Your task to perform on an android device: Open calendar and show me the fourth week of next month Image 0: 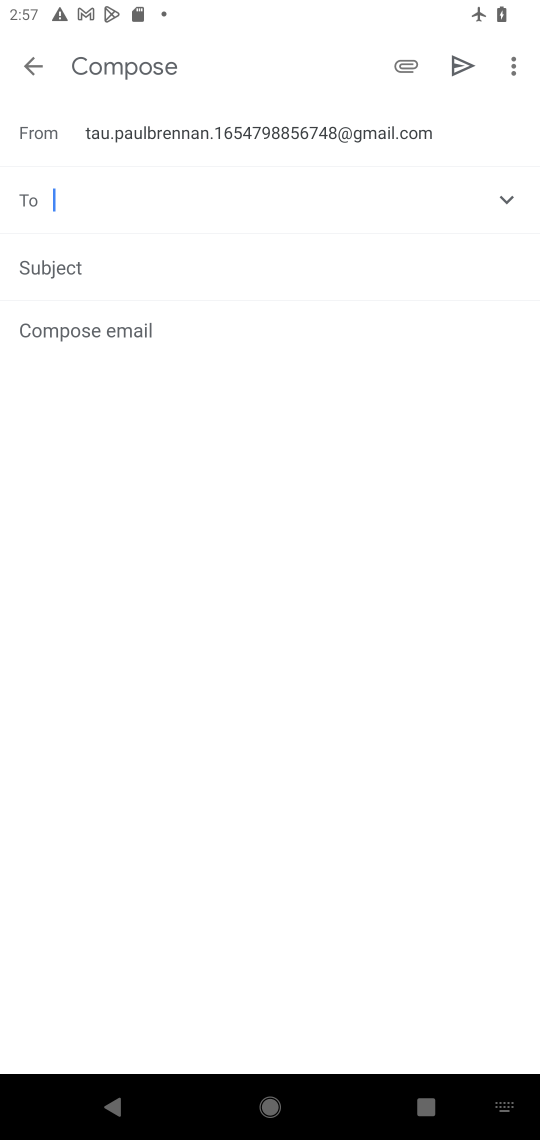
Step 0: press home button
Your task to perform on an android device: Open calendar and show me the fourth week of next month Image 1: 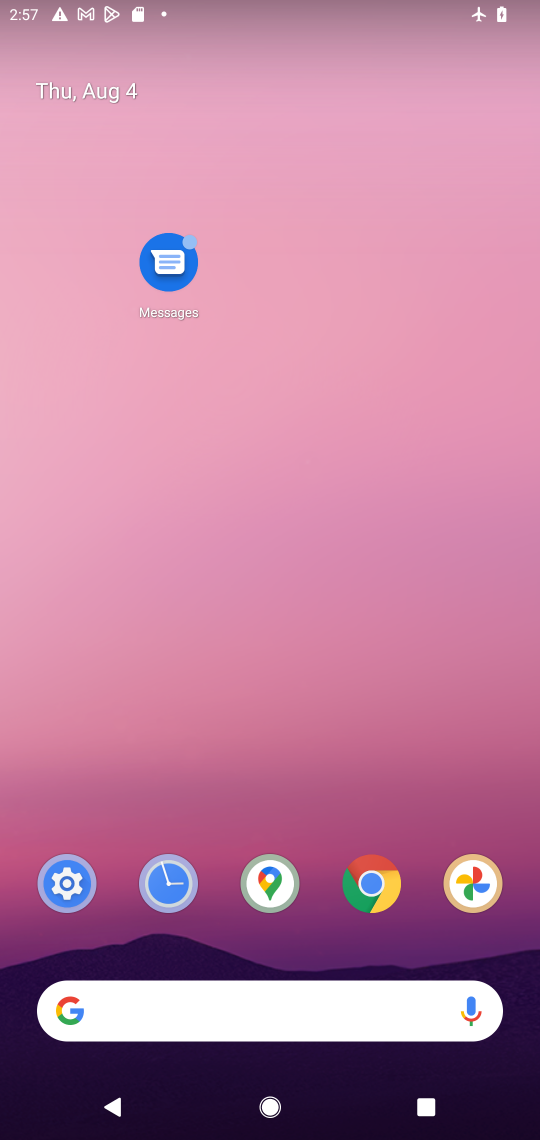
Step 1: drag from (215, 934) to (198, 332)
Your task to perform on an android device: Open calendar and show me the fourth week of next month Image 2: 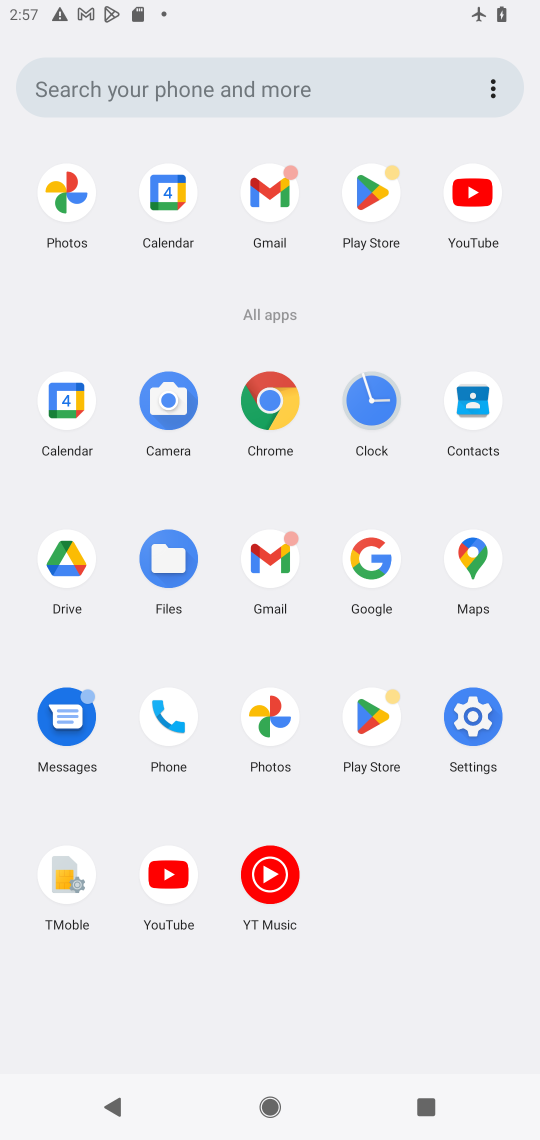
Step 2: click (165, 193)
Your task to perform on an android device: Open calendar and show me the fourth week of next month Image 3: 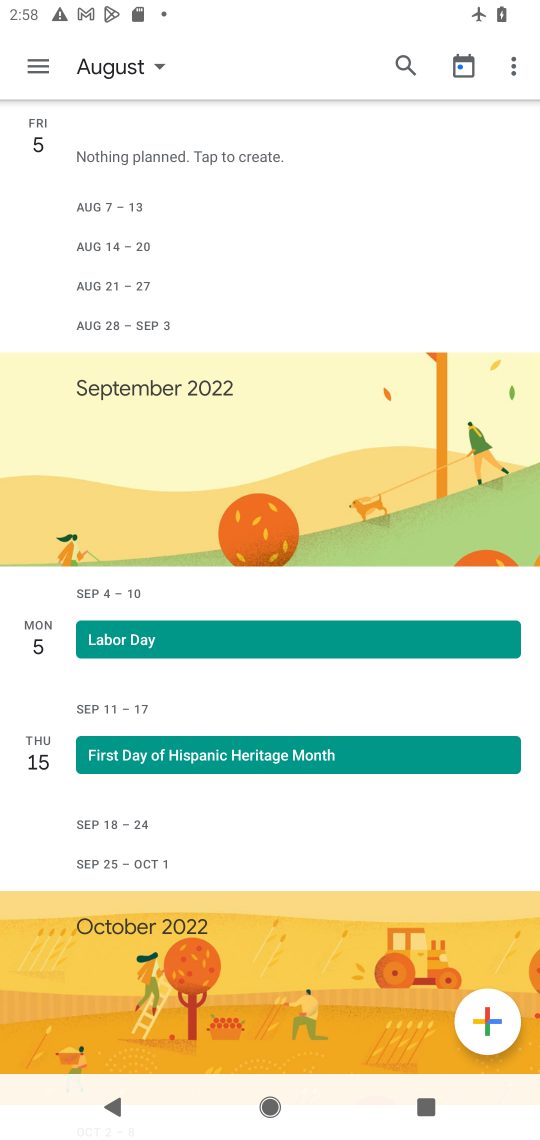
Step 3: click (161, 63)
Your task to perform on an android device: Open calendar and show me the fourth week of next month Image 4: 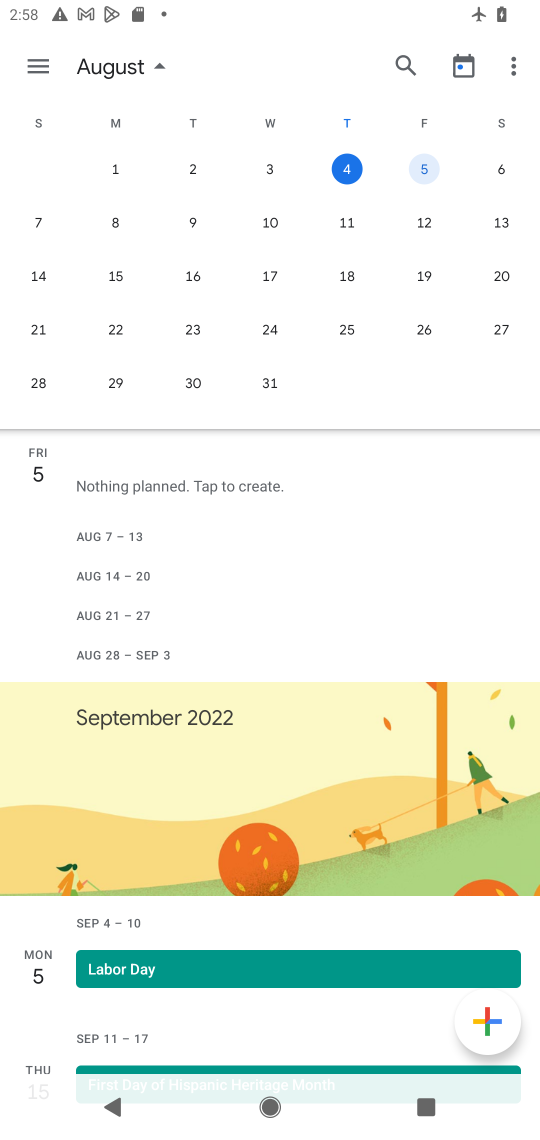
Step 4: drag from (382, 286) to (119, 322)
Your task to perform on an android device: Open calendar and show me the fourth week of next month Image 5: 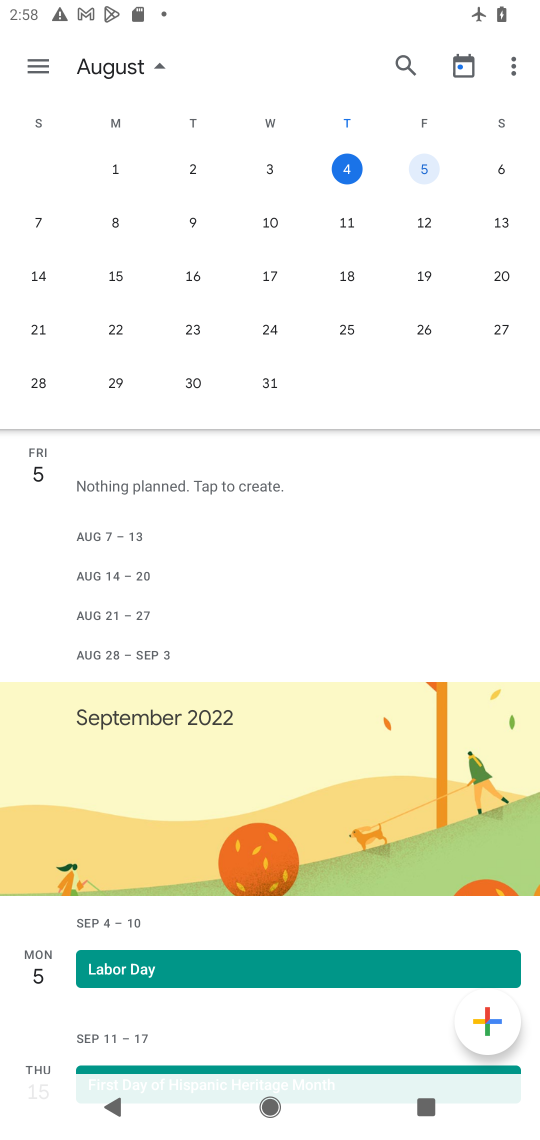
Step 5: drag from (424, 292) to (47, 309)
Your task to perform on an android device: Open calendar and show me the fourth week of next month Image 6: 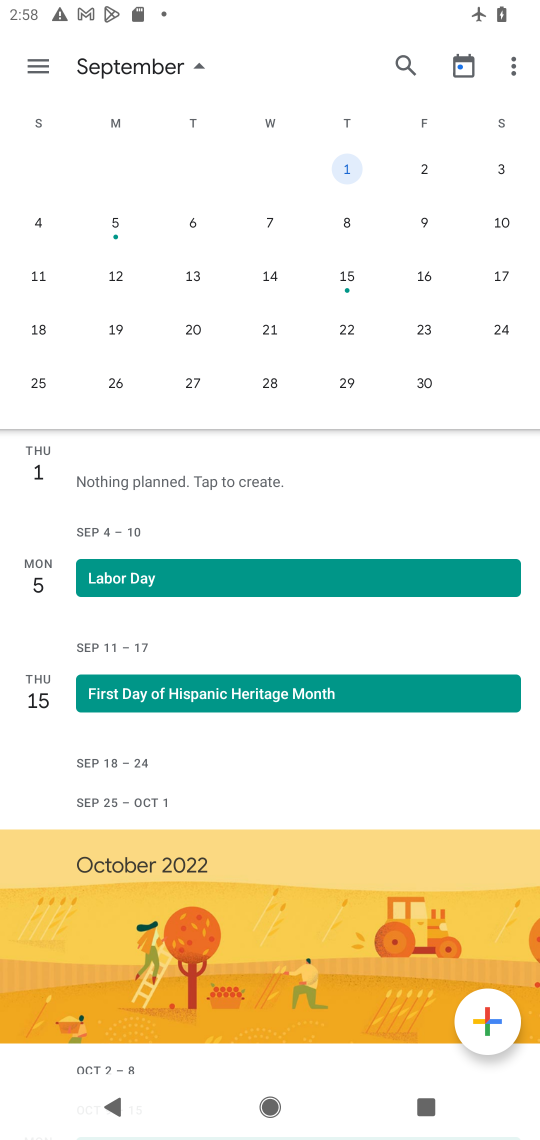
Step 6: click (113, 391)
Your task to perform on an android device: Open calendar and show me the fourth week of next month Image 7: 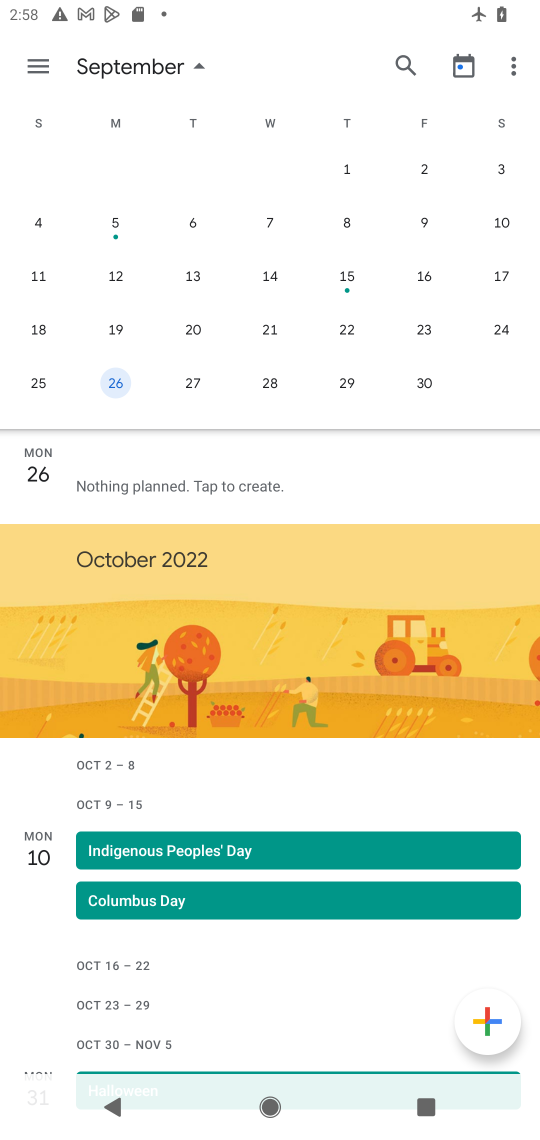
Step 7: click (41, 69)
Your task to perform on an android device: Open calendar and show me the fourth week of next month Image 8: 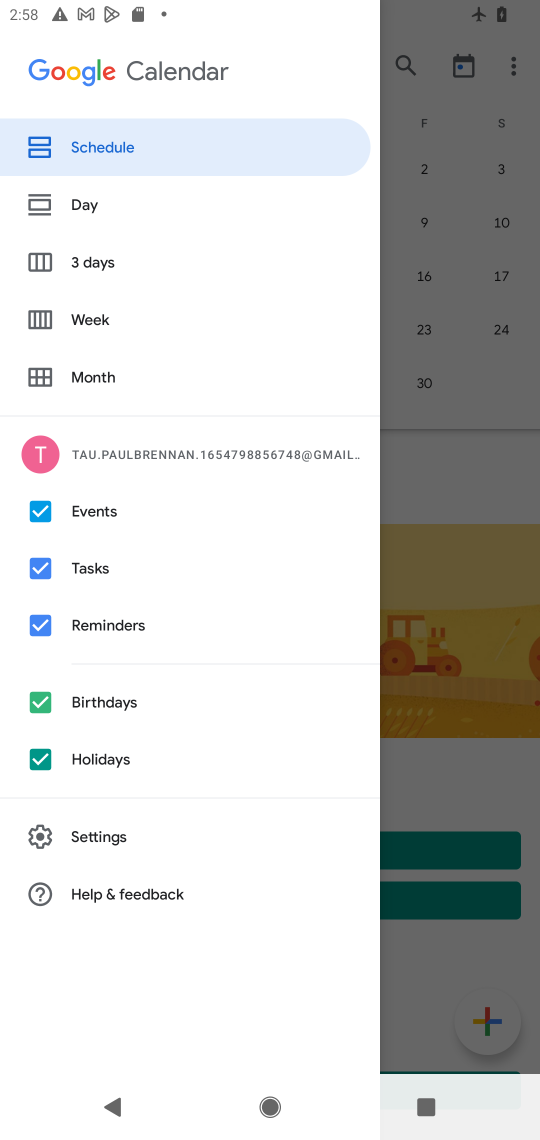
Step 8: click (92, 313)
Your task to perform on an android device: Open calendar and show me the fourth week of next month Image 9: 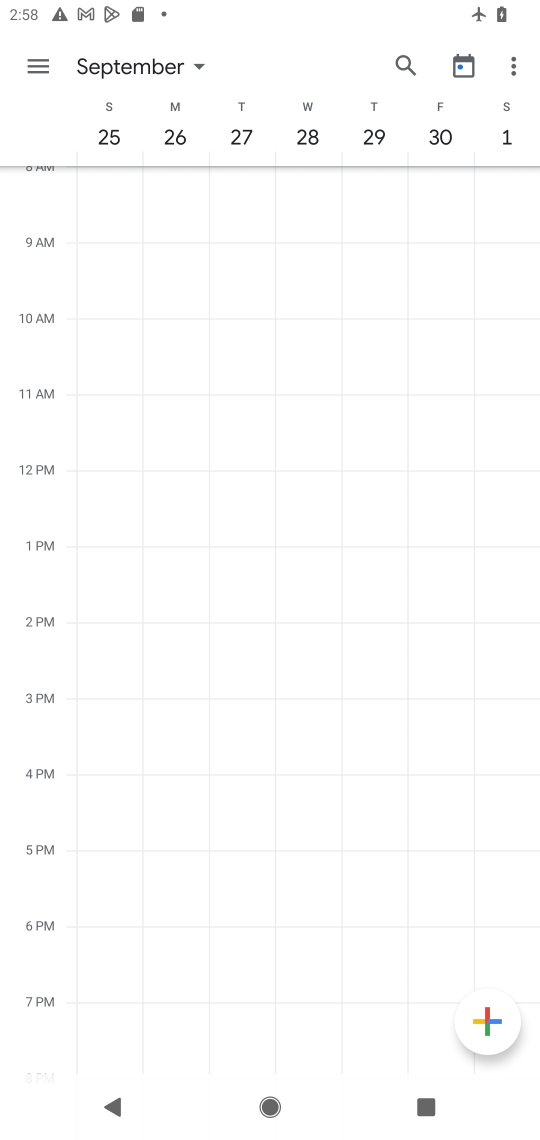
Step 9: task complete